Your task to perform on an android device: clear all cookies in the chrome app Image 0: 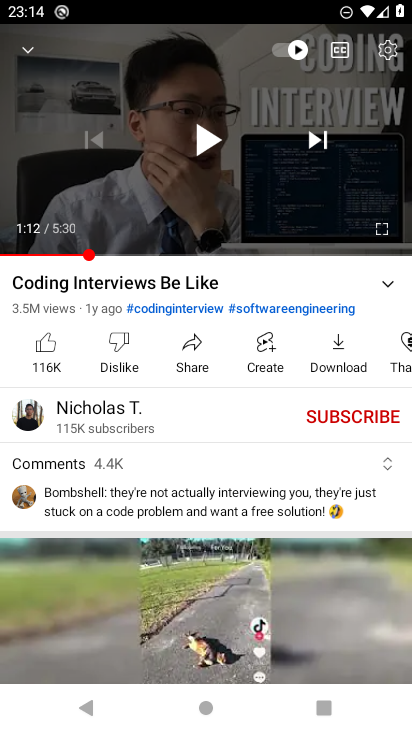
Step 0: press home button
Your task to perform on an android device: clear all cookies in the chrome app Image 1: 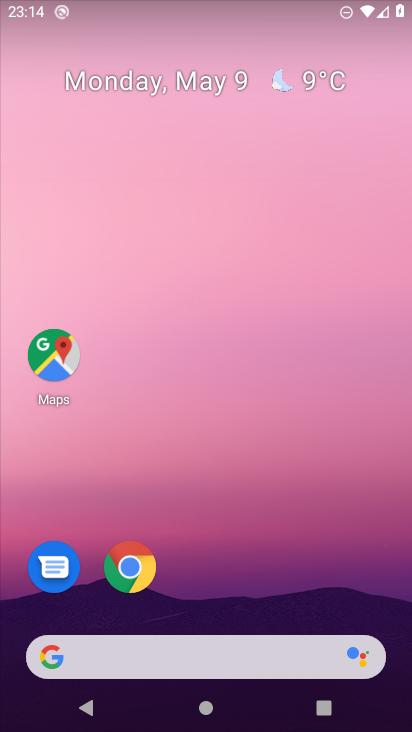
Step 1: click (123, 562)
Your task to perform on an android device: clear all cookies in the chrome app Image 2: 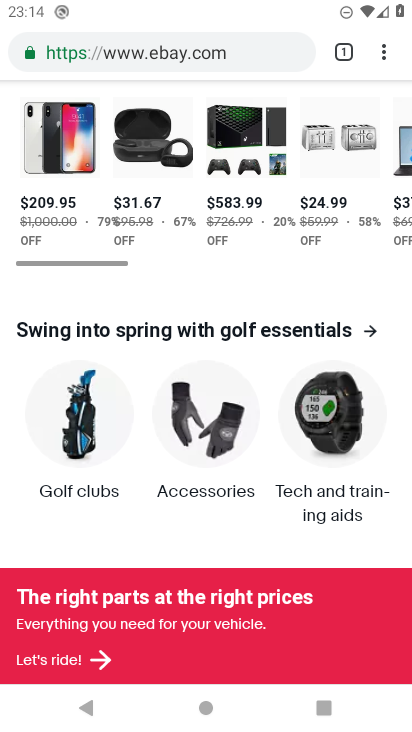
Step 2: click (383, 48)
Your task to perform on an android device: clear all cookies in the chrome app Image 3: 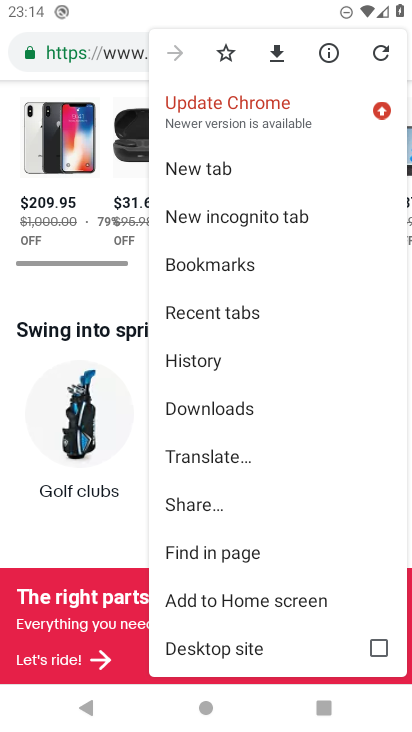
Step 3: click (232, 358)
Your task to perform on an android device: clear all cookies in the chrome app Image 4: 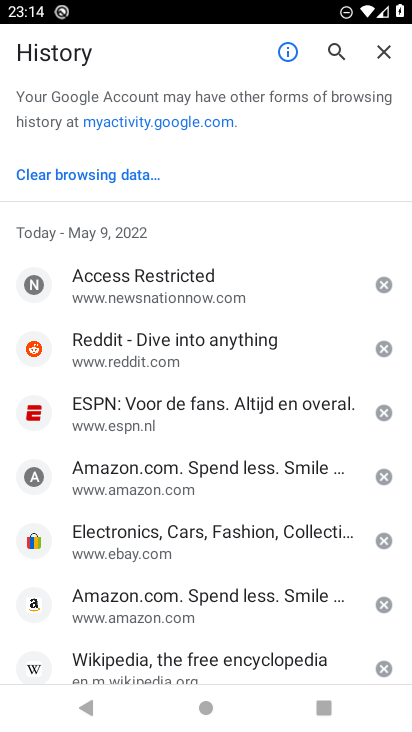
Step 4: click (85, 172)
Your task to perform on an android device: clear all cookies in the chrome app Image 5: 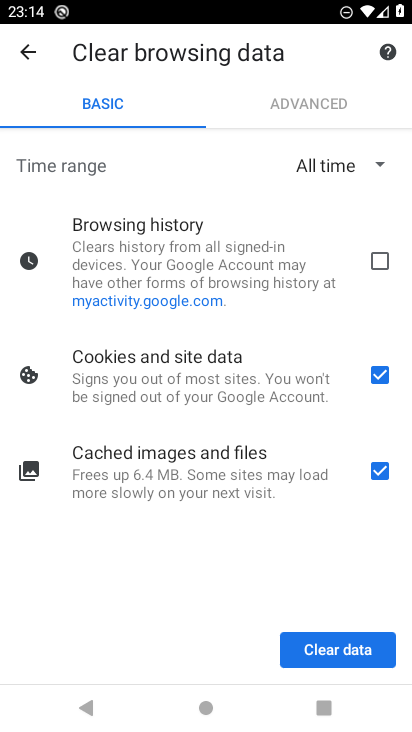
Step 5: click (382, 468)
Your task to perform on an android device: clear all cookies in the chrome app Image 6: 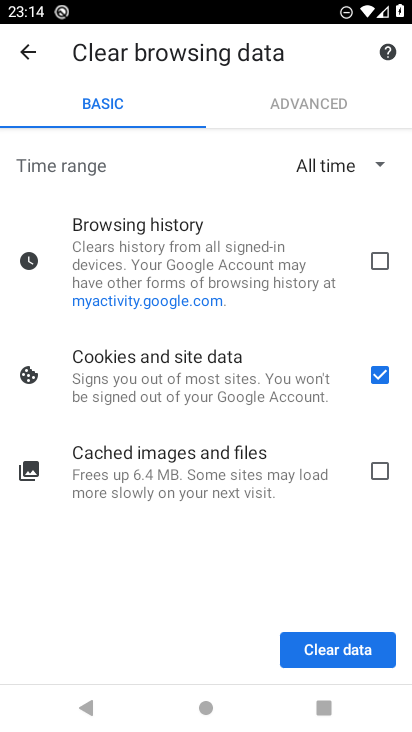
Step 6: click (340, 648)
Your task to perform on an android device: clear all cookies in the chrome app Image 7: 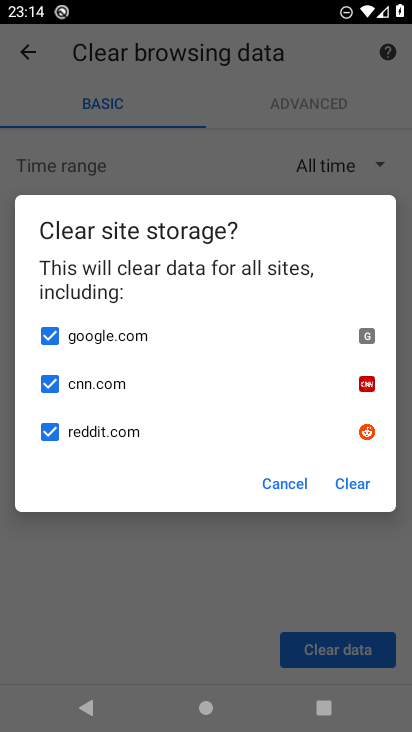
Step 7: click (353, 481)
Your task to perform on an android device: clear all cookies in the chrome app Image 8: 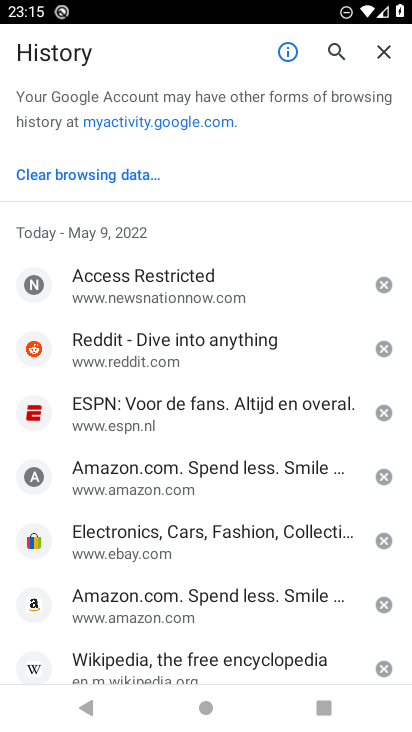
Step 8: task complete